Your task to perform on an android device: Open battery settings Image 0: 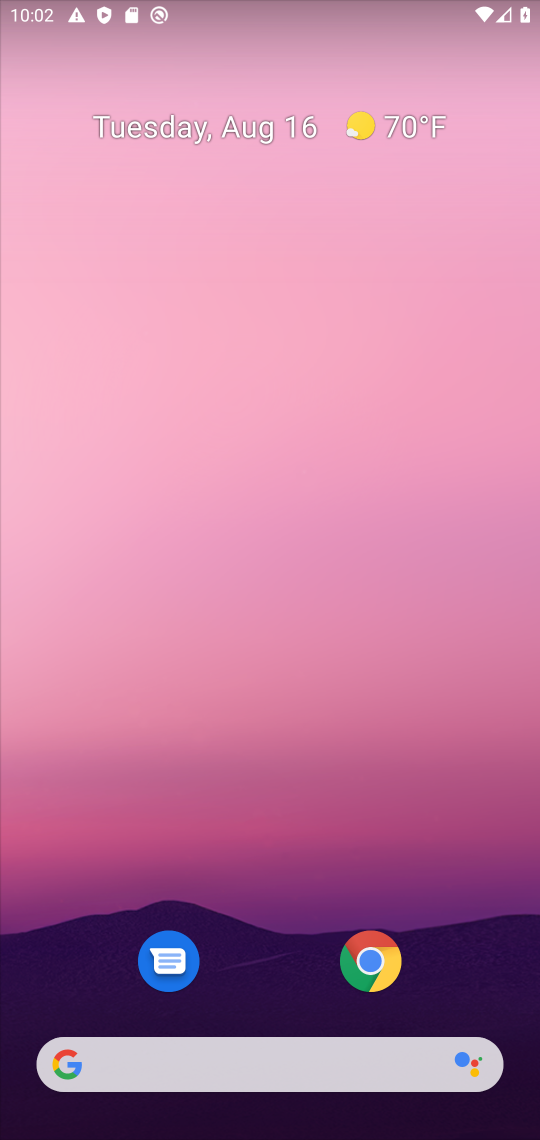
Step 0: drag from (321, 735) to (297, 170)
Your task to perform on an android device: Open battery settings Image 1: 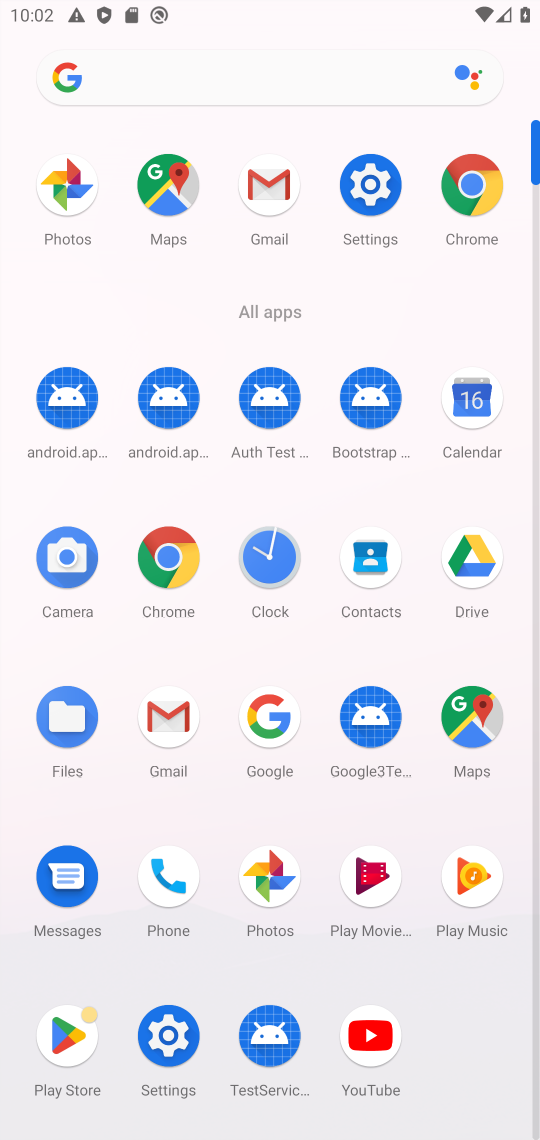
Step 1: click (369, 200)
Your task to perform on an android device: Open battery settings Image 2: 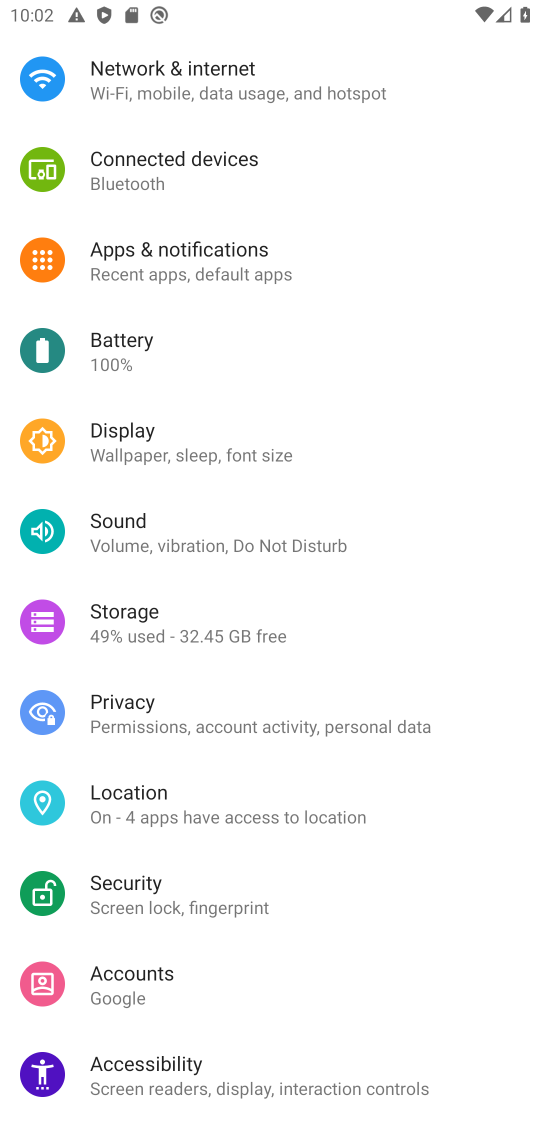
Step 2: click (179, 352)
Your task to perform on an android device: Open battery settings Image 3: 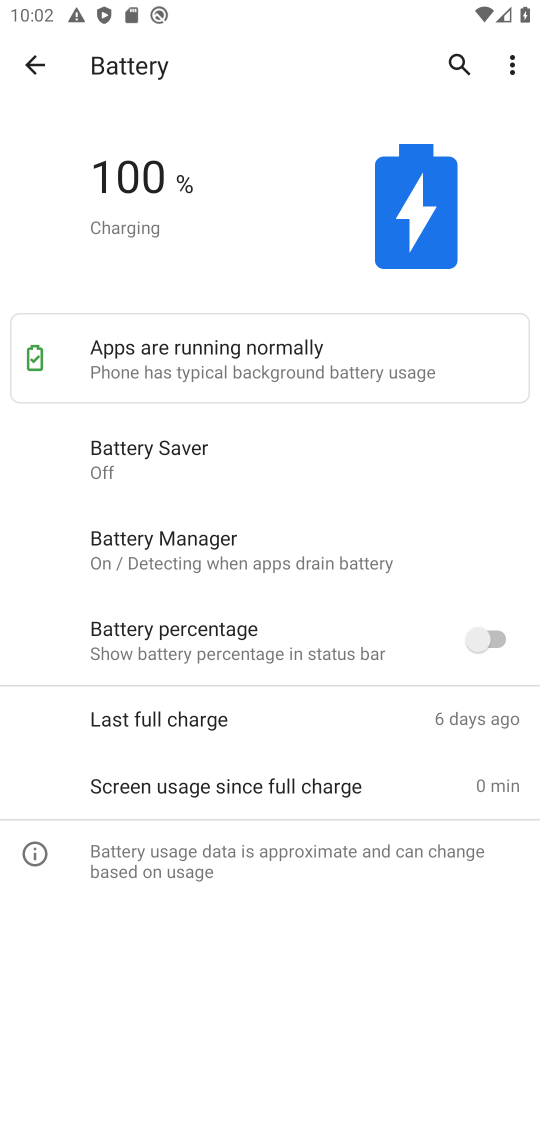
Step 3: task complete